Your task to perform on an android device: toggle location history Image 0: 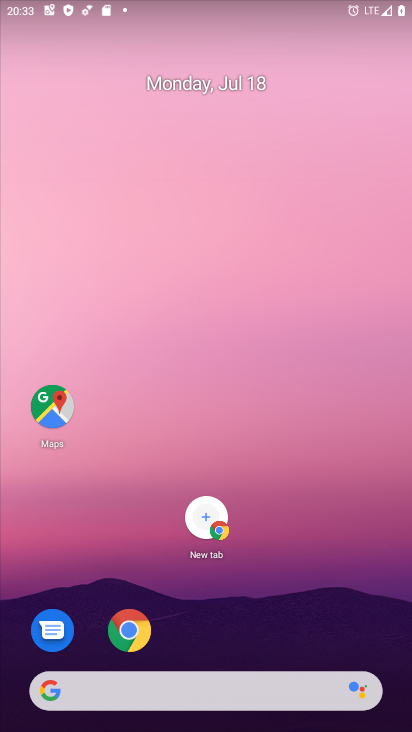
Step 0: drag from (210, 676) to (266, 286)
Your task to perform on an android device: toggle location history Image 1: 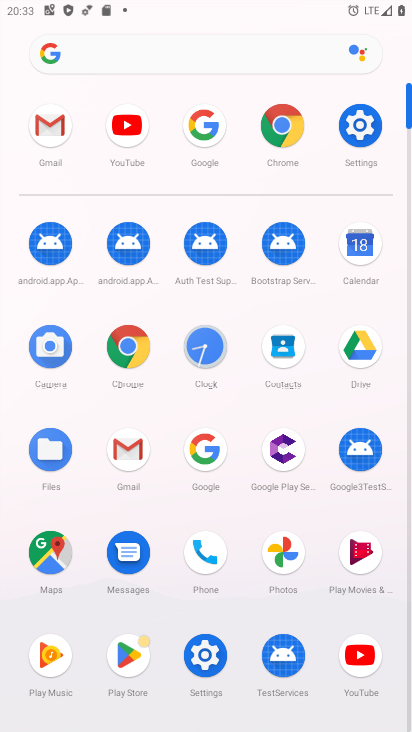
Step 1: click (353, 130)
Your task to perform on an android device: toggle location history Image 2: 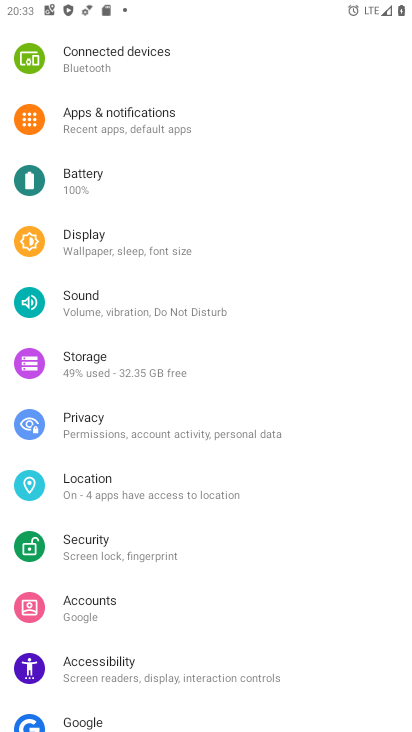
Step 2: click (67, 486)
Your task to perform on an android device: toggle location history Image 3: 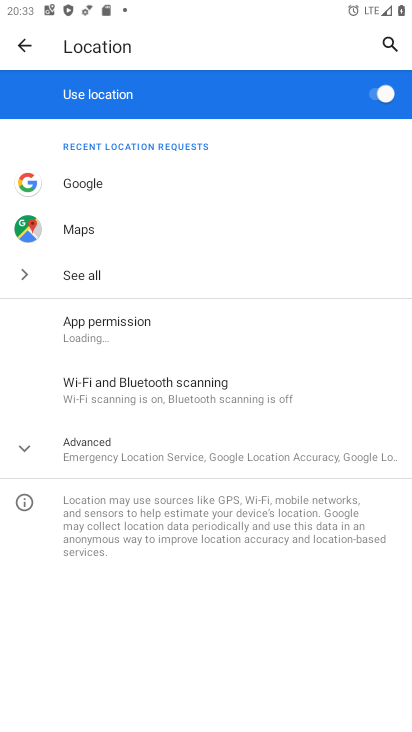
Step 3: click (114, 455)
Your task to perform on an android device: toggle location history Image 4: 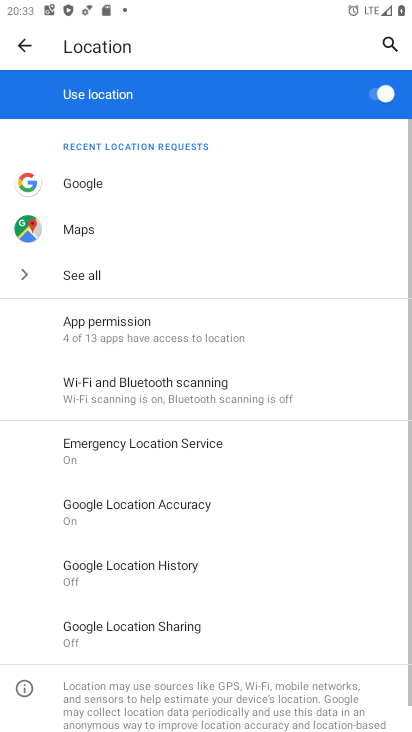
Step 4: click (111, 570)
Your task to perform on an android device: toggle location history Image 5: 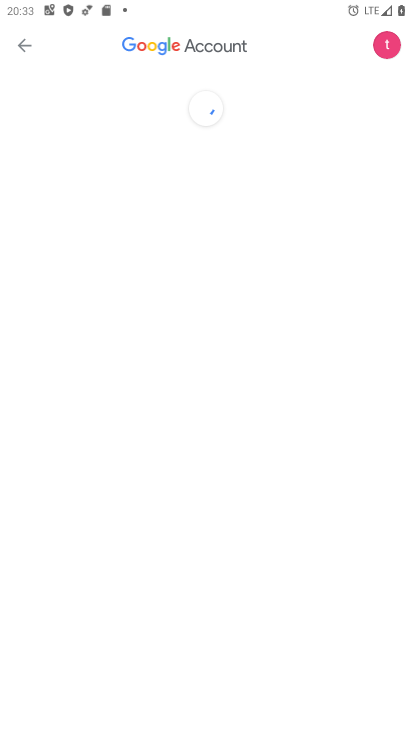
Step 5: click (237, 376)
Your task to perform on an android device: toggle location history Image 6: 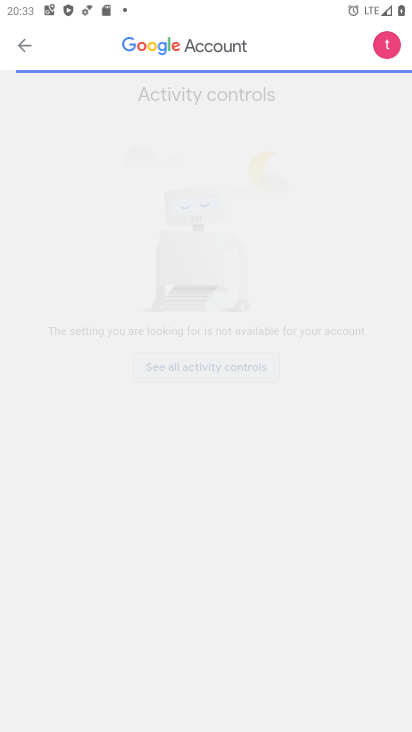
Step 6: click (200, 368)
Your task to perform on an android device: toggle location history Image 7: 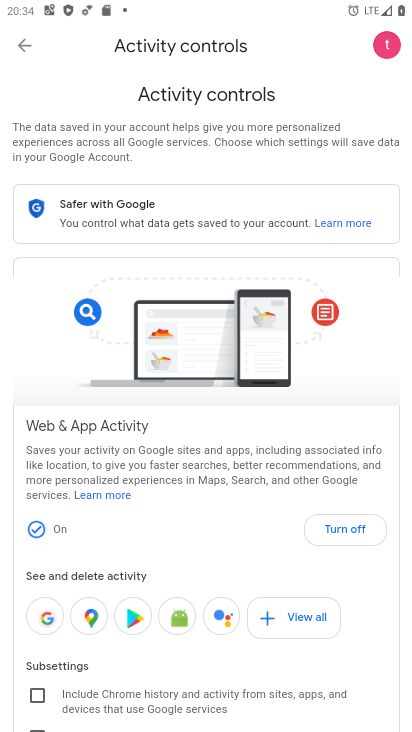
Step 7: click (338, 537)
Your task to perform on an android device: toggle location history Image 8: 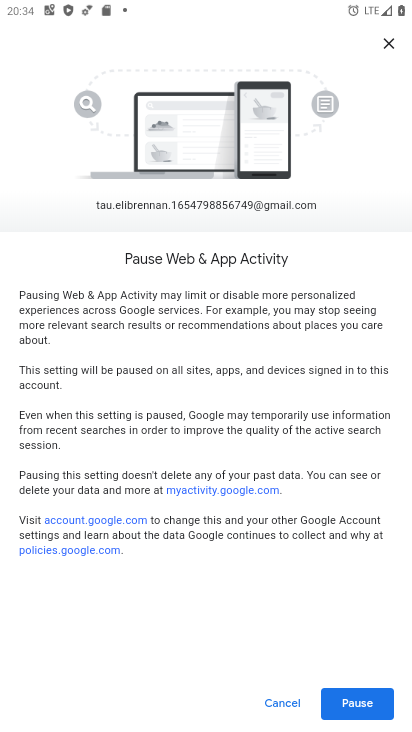
Step 8: click (349, 689)
Your task to perform on an android device: toggle location history Image 9: 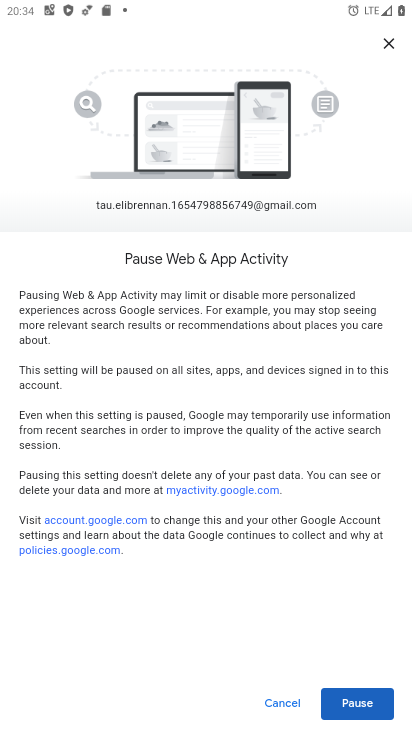
Step 9: click (363, 707)
Your task to perform on an android device: toggle location history Image 10: 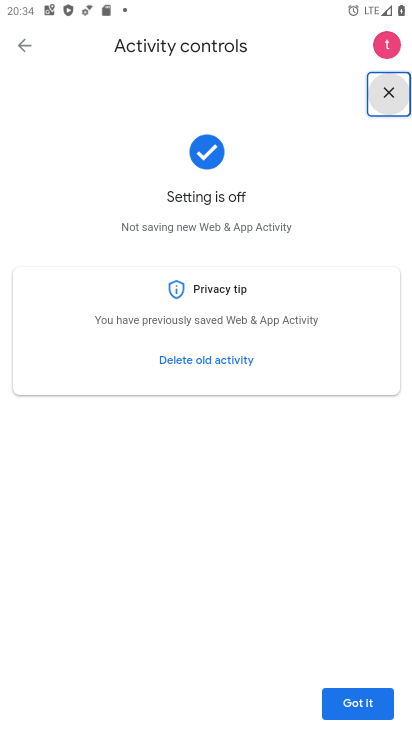
Step 10: click (364, 708)
Your task to perform on an android device: toggle location history Image 11: 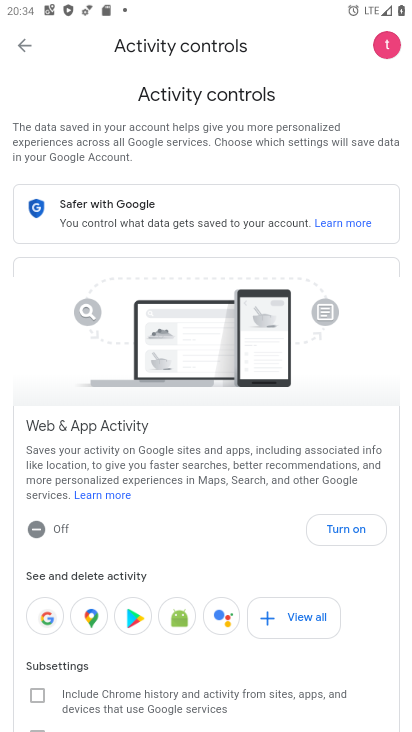
Step 11: task complete